Your task to perform on an android device: change the clock display to analog Image 0: 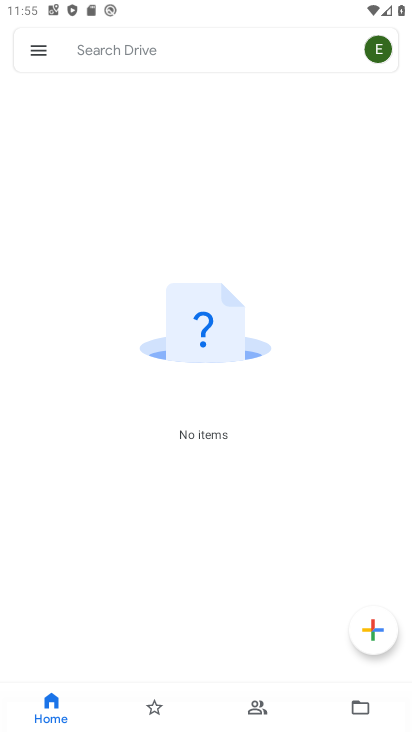
Step 0: press home button
Your task to perform on an android device: change the clock display to analog Image 1: 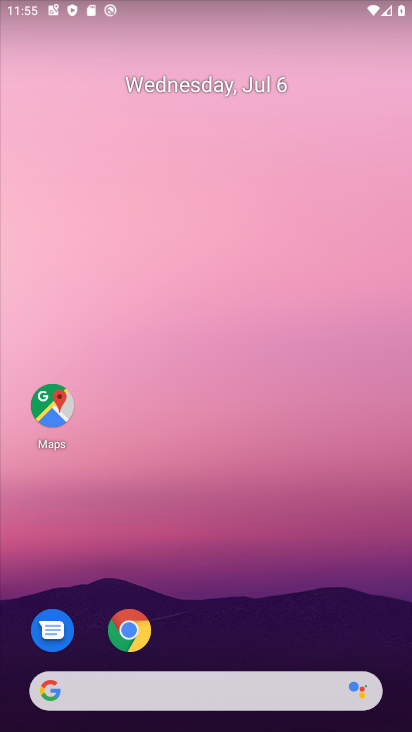
Step 1: drag from (218, 600) to (254, 157)
Your task to perform on an android device: change the clock display to analog Image 2: 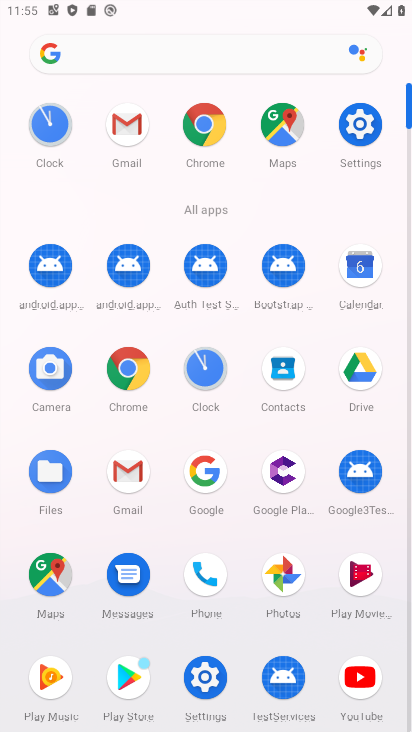
Step 2: click (205, 371)
Your task to perform on an android device: change the clock display to analog Image 3: 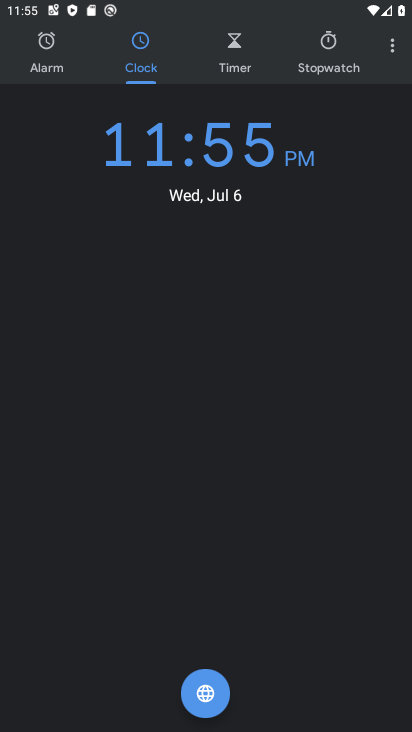
Step 3: click (398, 44)
Your task to perform on an android device: change the clock display to analog Image 4: 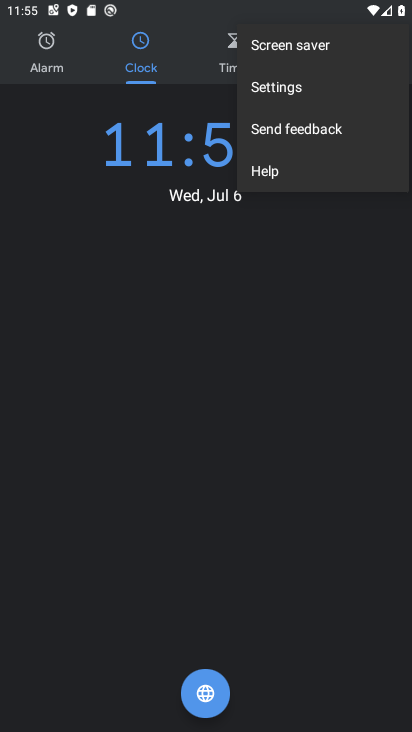
Step 4: click (290, 88)
Your task to perform on an android device: change the clock display to analog Image 5: 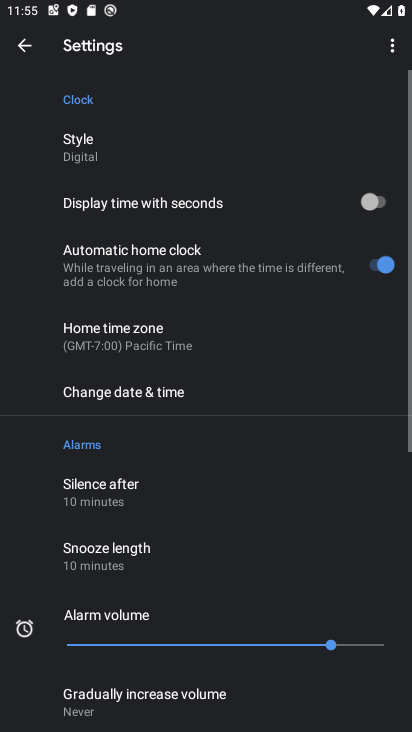
Step 5: click (96, 159)
Your task to perform on an android device: change the clock display to analog Image 6: 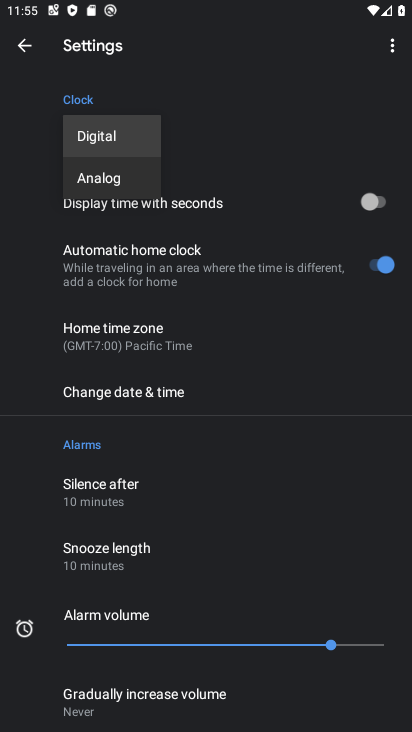
Step 6: click (114, 177)
Your task to perform on an android device: change the clock display to analog Image 7: 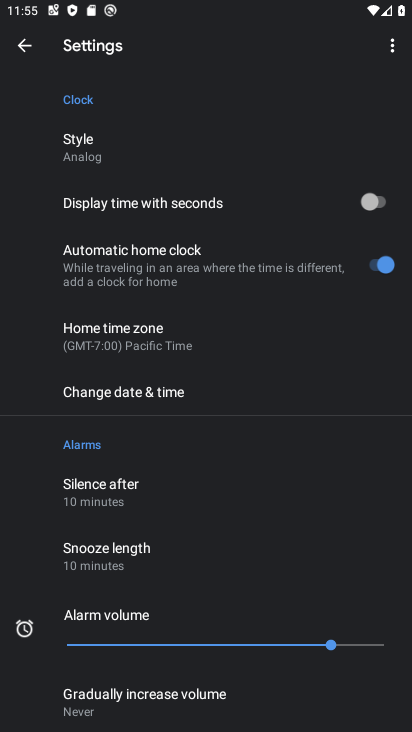
Step 7: task complete